Your task to perform on an android device: turn on bluetooth scan Image 0: 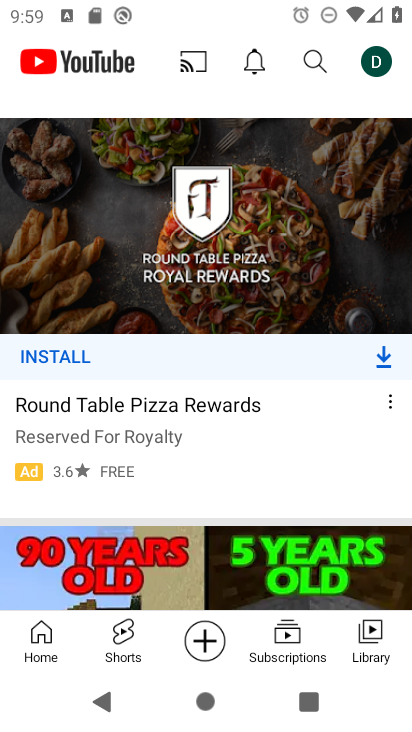
Step 0: press home button
Your task to perform on an android device: turn on bluetooth scan Image 1: 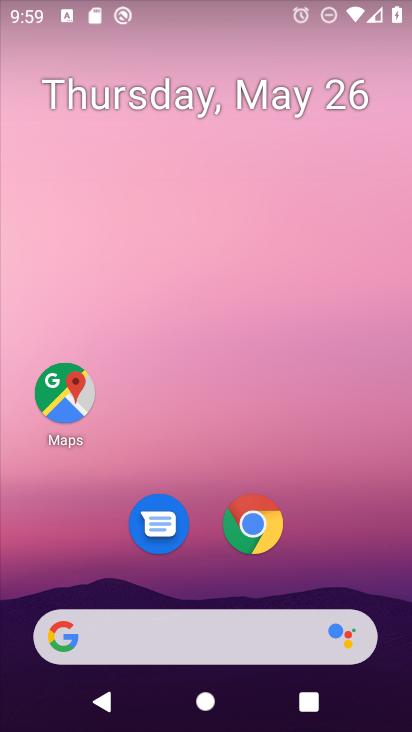
Step 1: drag from (319, 538) to (250, 23)
Your task to perform on an android device: turn on bluetooth scan Image 2: 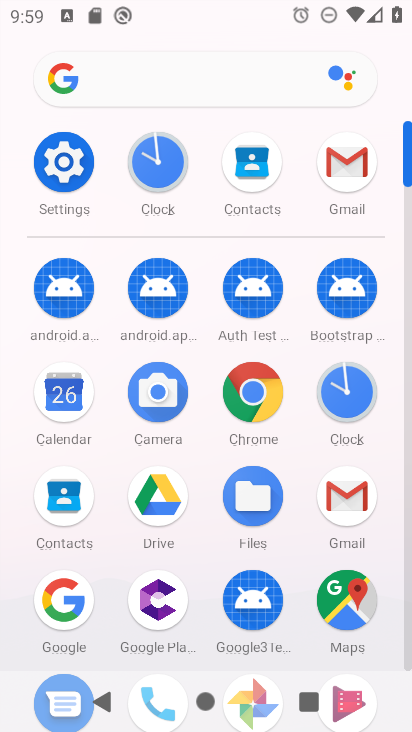
Step 2: click (63, 161)
Your task to perform on an android device: turn on bluetooth scan Image 3: 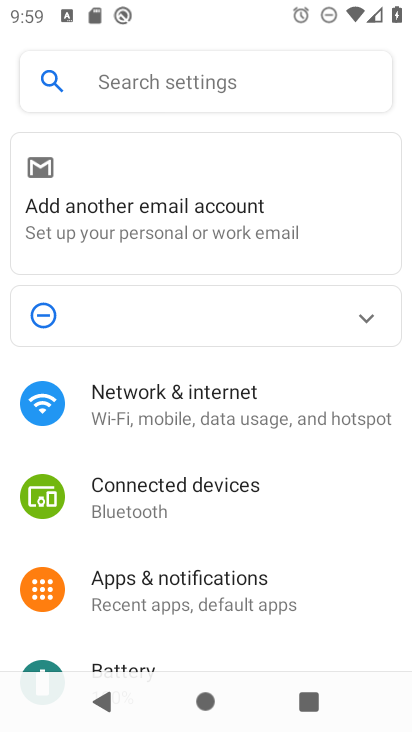
Step 3: drag from (211, 551) to (175, 107)
Your task to perform on an android device: turn on bluetooth scan Image 4: 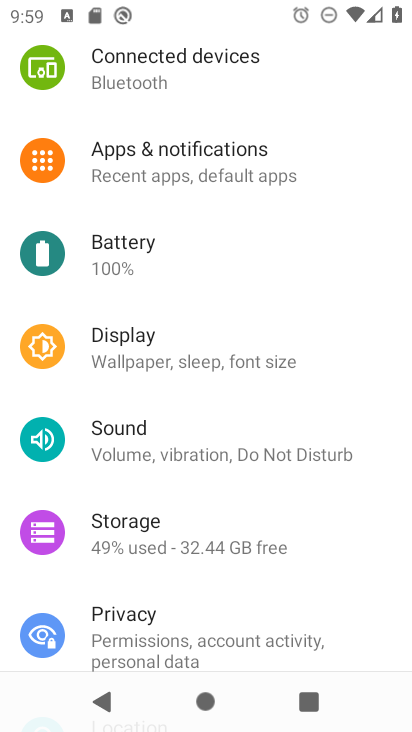
Step 4: drag from (264, 496) to (257, 216)
Your task to perform on an android device: turn on bluetooth scan Image 5: 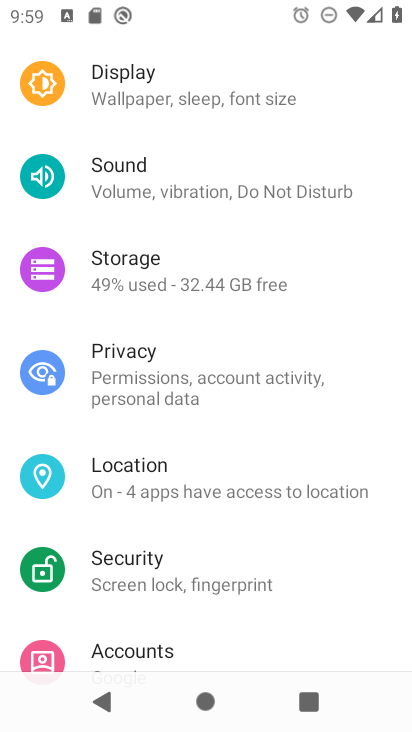
Step 5: click (258, 474)
Your task to perform on an android device: turn on bluetooth scan Image 6: 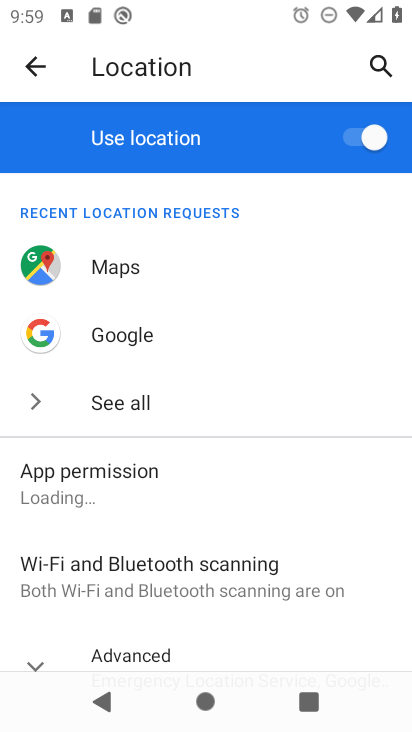
Step 6: click (265, 572)
Your task to perform on an android device: turn on bluetooth scan Image 7: 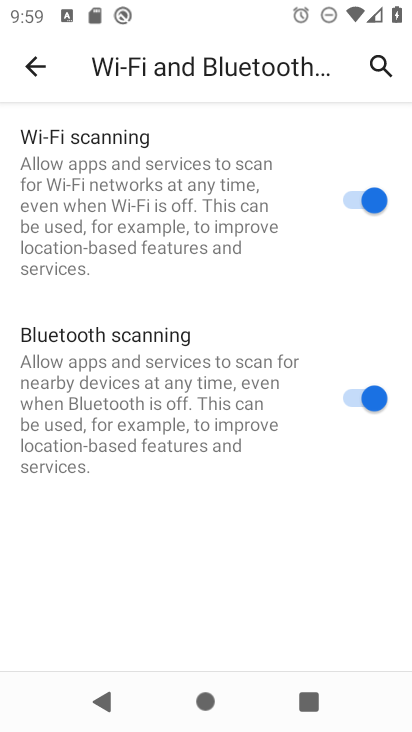
Step 7: task complete